Your task to perform on an android device: Open Chrome and go to settings Image 0: 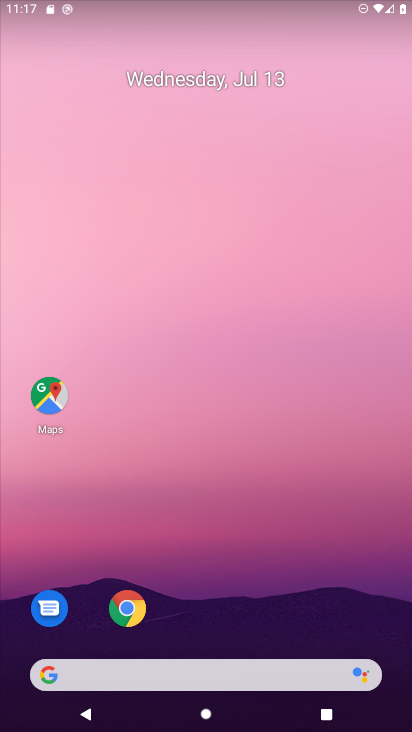
Step 0: click (133, 615)
Your task to perform on an android device: Open Chrome and go to settings Image 1: 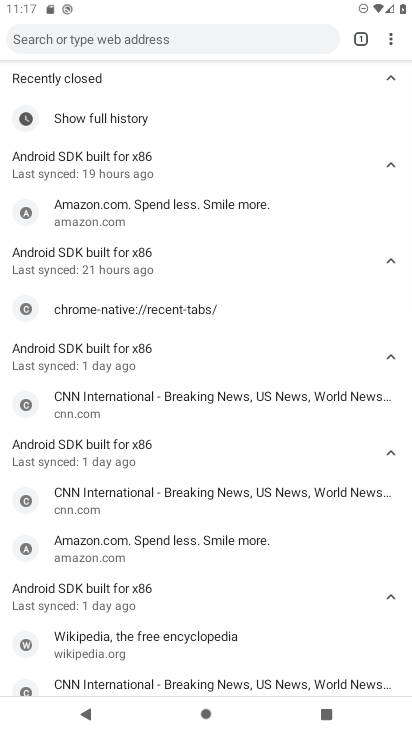
Step 1: click (387, 36)
Your task to perform on an android device: Open Chrome and go to settings Image 2: 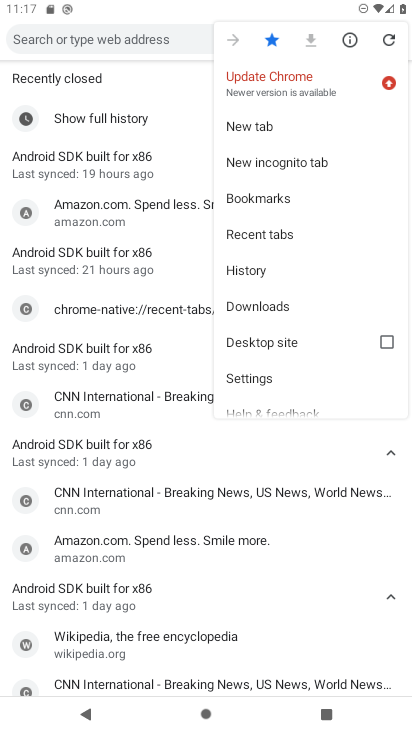
Step 2: click (256, 385)
Your task to perform on an android device: Open Chrome and go to settings Image 3: 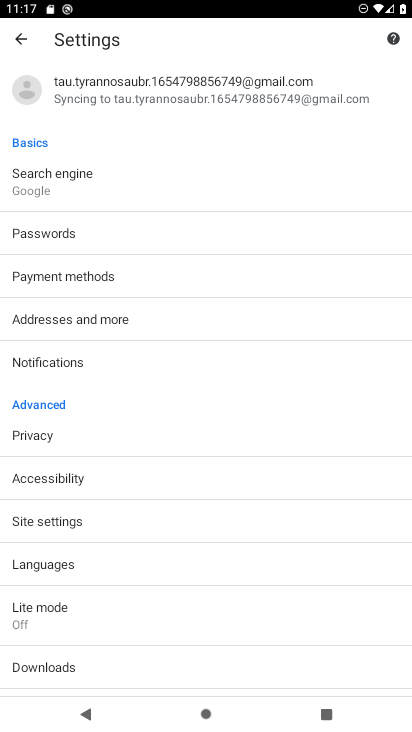
Step 3: task complete